Your task to perform on an android device: toggle sleep mode Image 0: 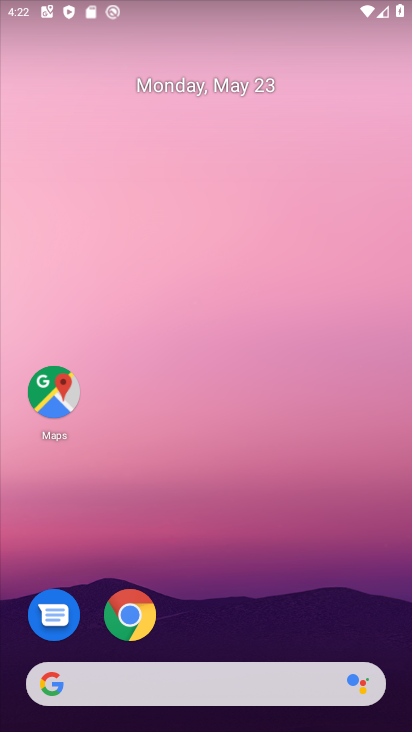
Step 0: drag from (223, 607) to (256, 84)
Your task to perform on an android device: toggle sleep mode Image 1: 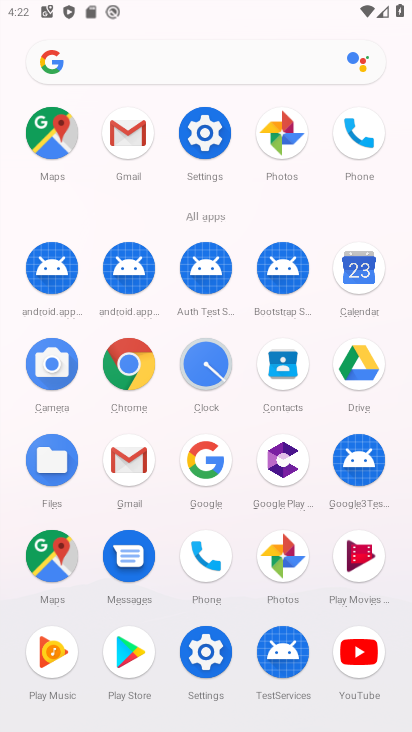
Step 1: click (205, 119)
Your task to perform on an android device: toggle sleep mode Image 2: 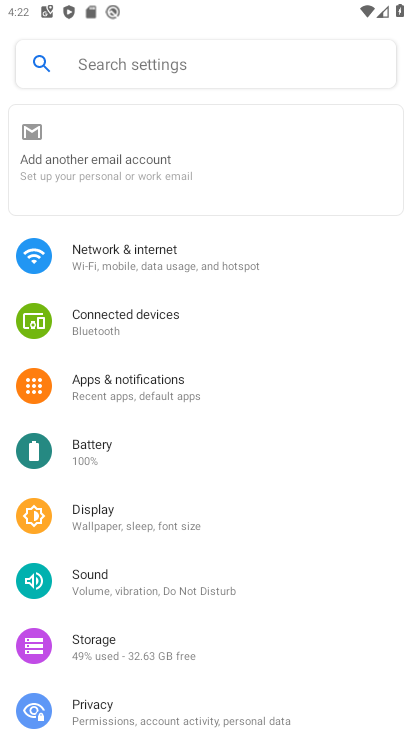
Step 2: click (128, 70)
Your task to perform on an android device: toggle sleep mode Image 3: 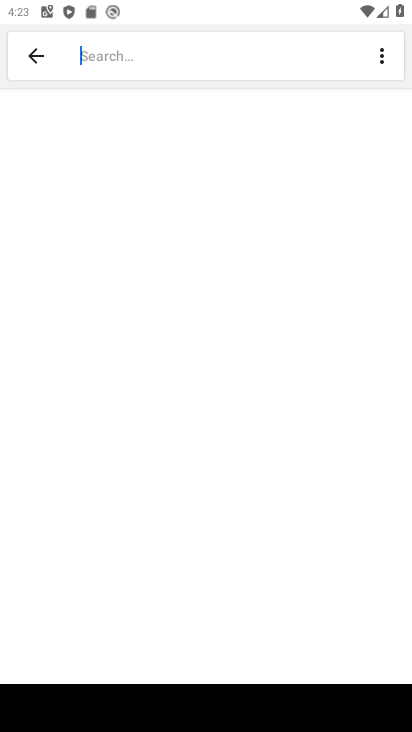
Step 3: type "sleep mode"
Your task to perform on an android device: toggle sleep mode Image 4: 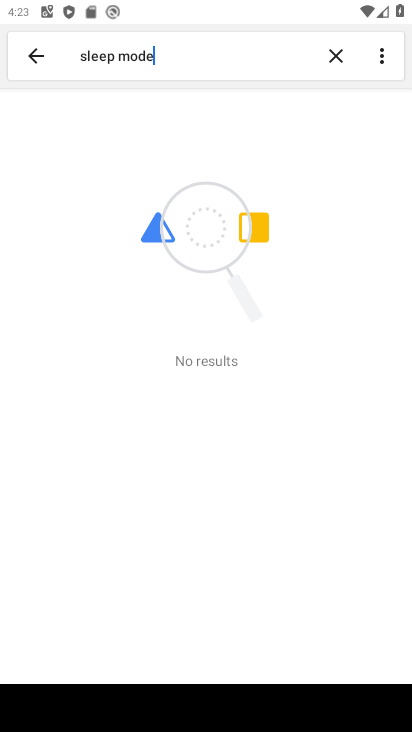
Step 4: task complete